Your task to perform on an android device: Go to wifi settings Image 0: 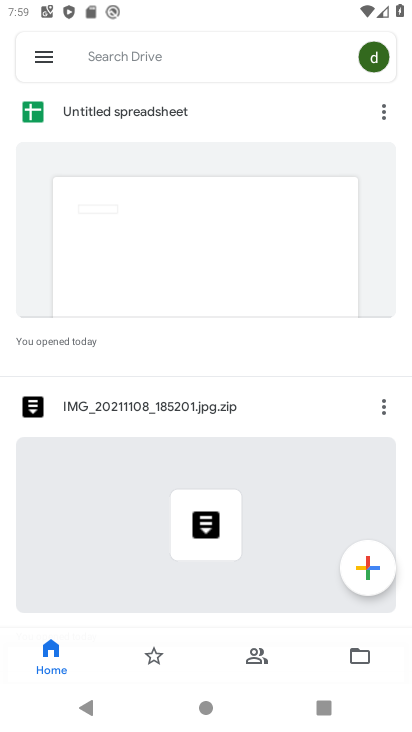
Step 0: press back button
Your task to perform on an android device: Go to wifi settings Image 1: 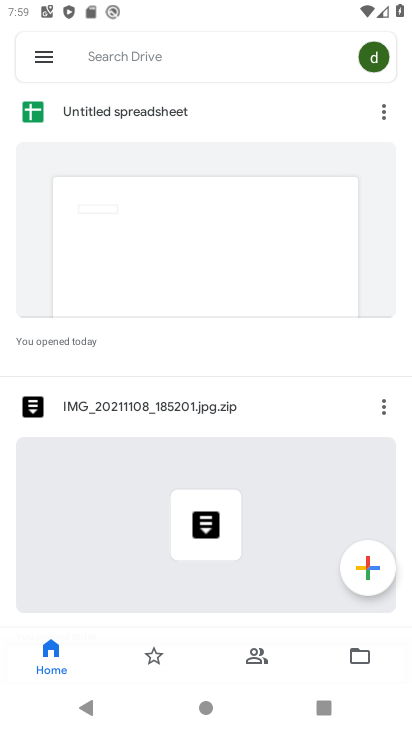
Step 1: press back button
Your task to perform on an android device: Go to wifi settings Image 2: 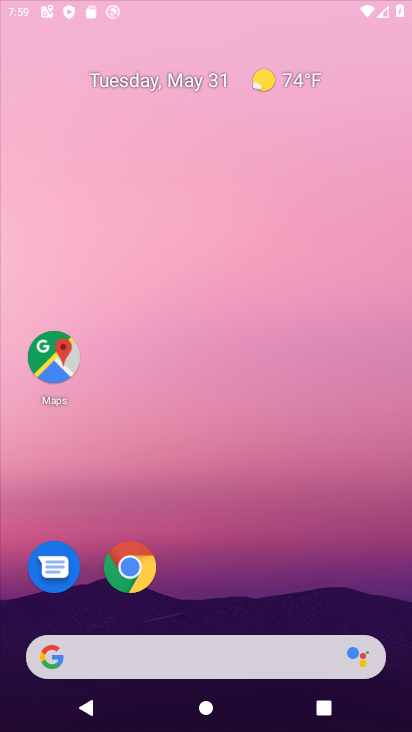
Step 2: press back button
Your task to perform on an android device: Go to wifi settings Image 3: 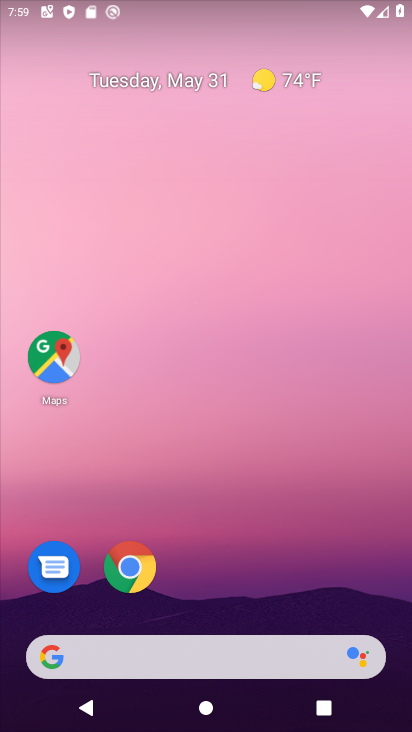
Step 3: drag from (224, 691) to (189, 169)
Your task to perform on an android device: Go to wifi settings Image 4: 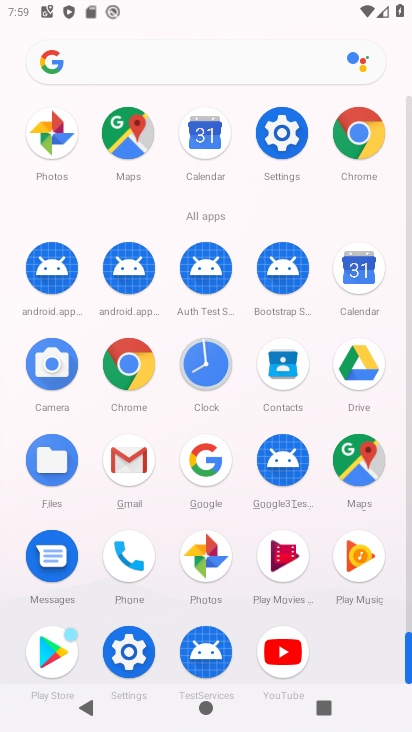
Step 4: click (263, 135)
Your task to perform on an android device: Go to wifi settings Image 5: 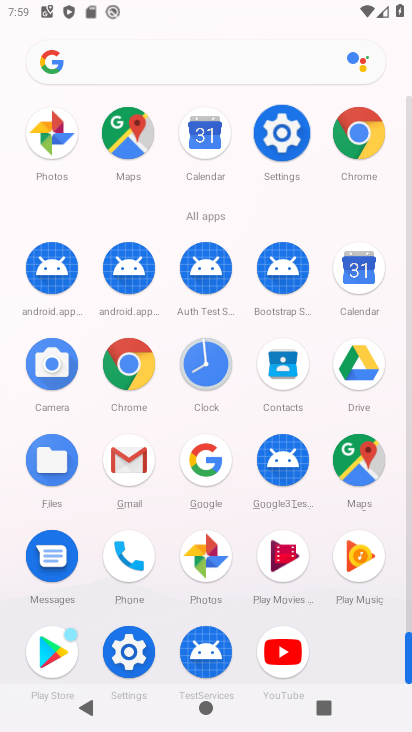
Step 5: click (264, 135)
Your task to perform on an android device: Go to wifi settings Image 6: 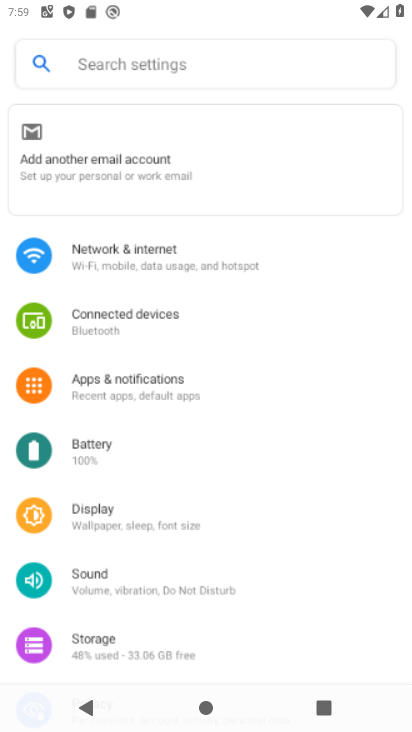
Step 6: click (271, 136)
Your task to perform on an android device: Go to wifi settings Image 7: 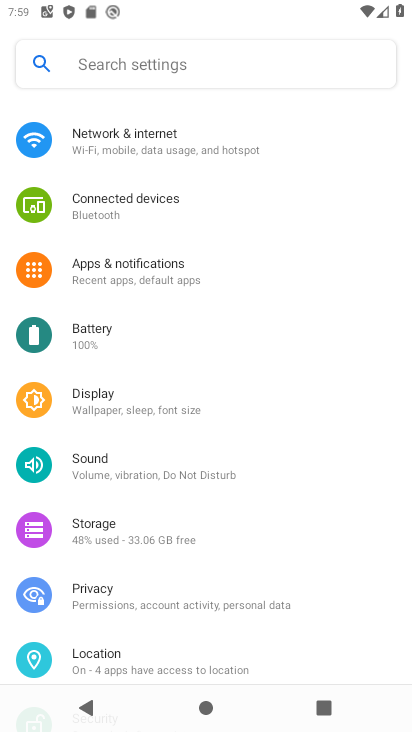
Step 7: click (273, 136)
Your task to perform on an android device: Go to wifi settings Image 8: 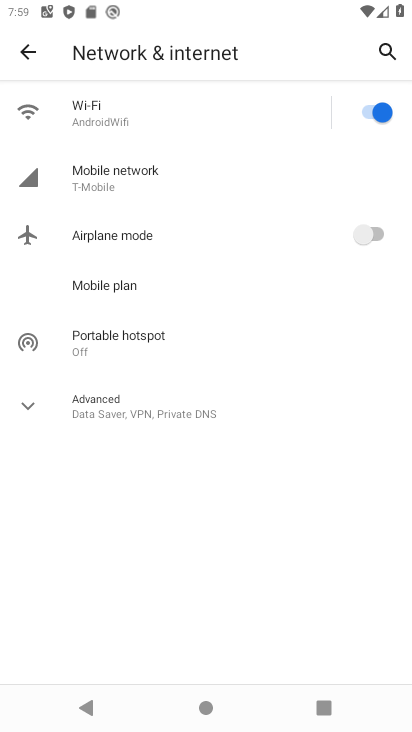
Step 8: task complete